Your task to perform on an android device: Toggle the flashlight Image 0: 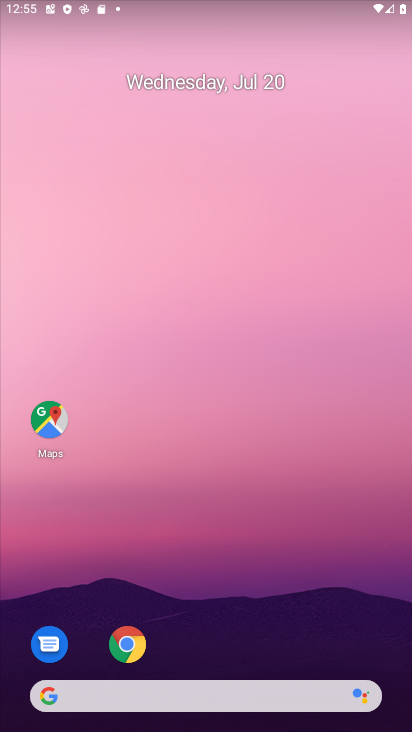
Step 0: press home button
Your task to perform on an android device: Toggle the flashlight Image 1: 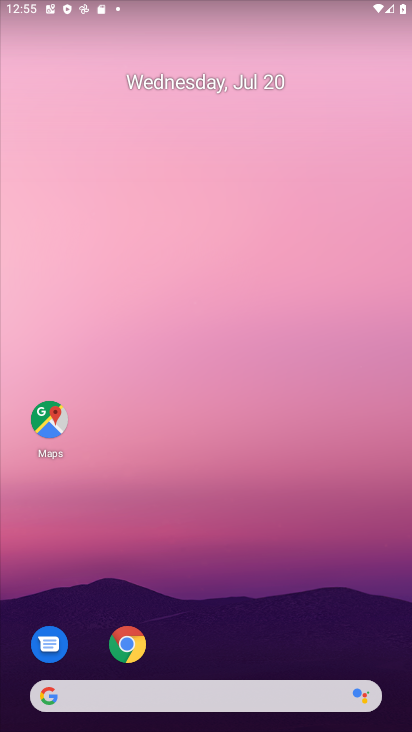
Step 1: task complete